Your task to perform on an android device: Go to Android settings Image 0: 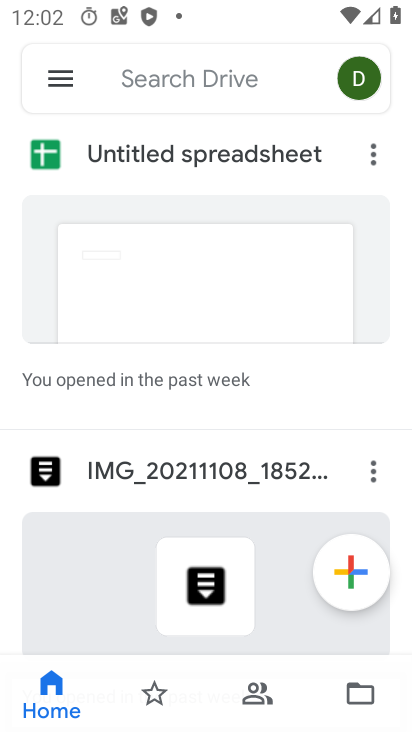
Step 0: press home button
Your task to perform on an android device: Go to Android settings Image 1: 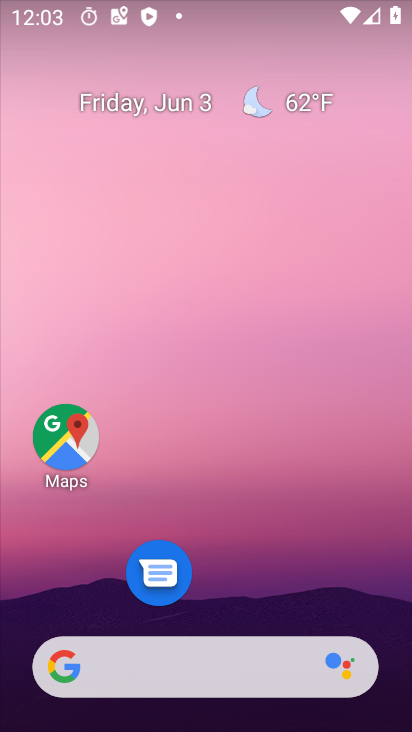
Step 1: drag from (165, 650) to (239, 33)
Your task to perform on an android device: Go to Android settings Image 2: 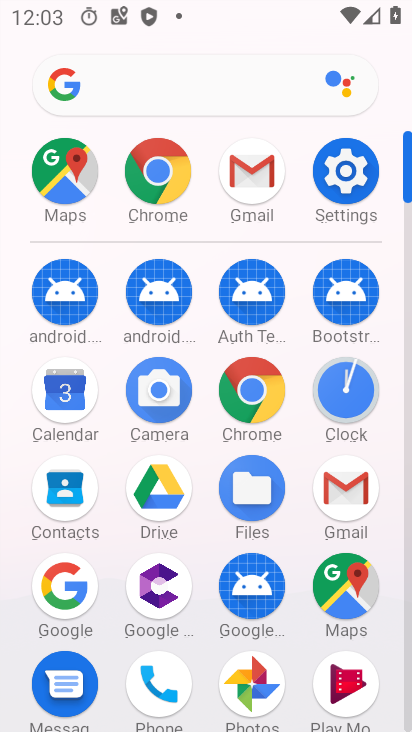
Step 2: click (352, 173)
Your task to perform on an android device: Go to Android settings Image 3: 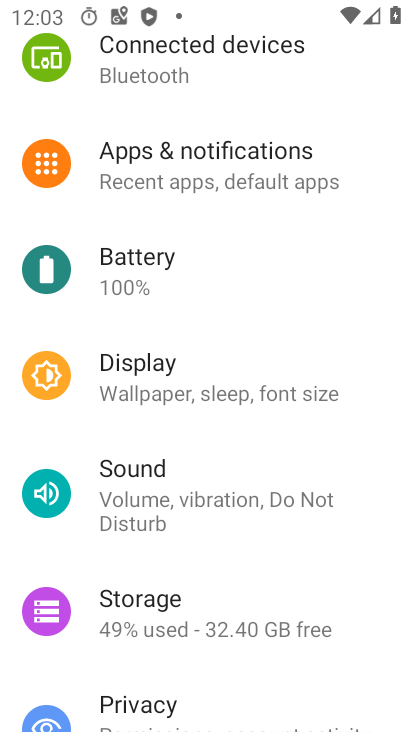
Step 3: drag from (271, 659) to (264, 136)
Your task to perform on an android device: Go to Android settings Image 4: 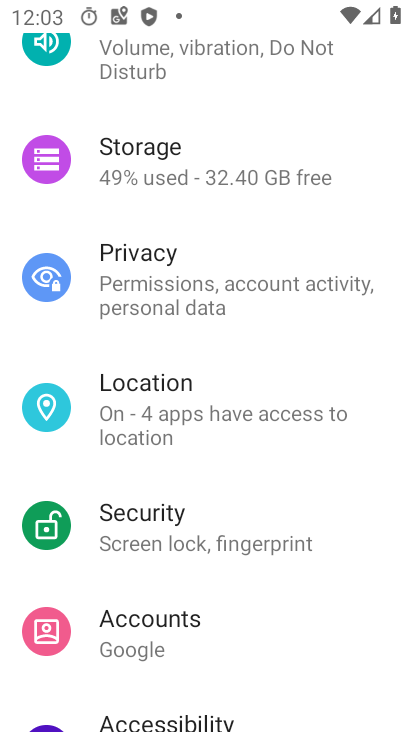
Step 4: drag from (296, 676) to (327, 142)
Your task to perform on an android device: Go to Android settings Image 5: 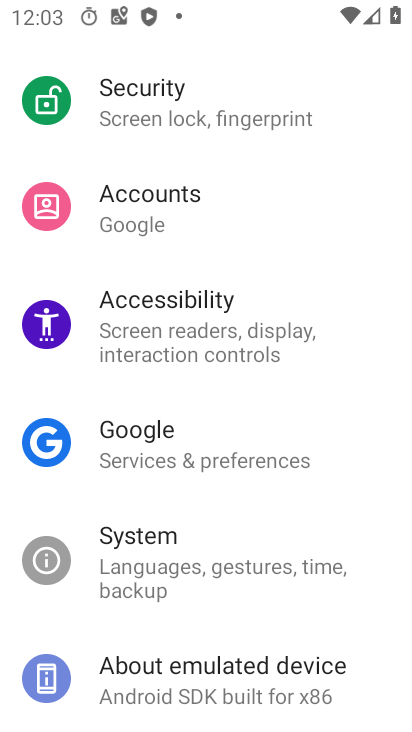
Step 5: click (271, 702)
Your task to perform on an android device: Go to Android settings Image 6: 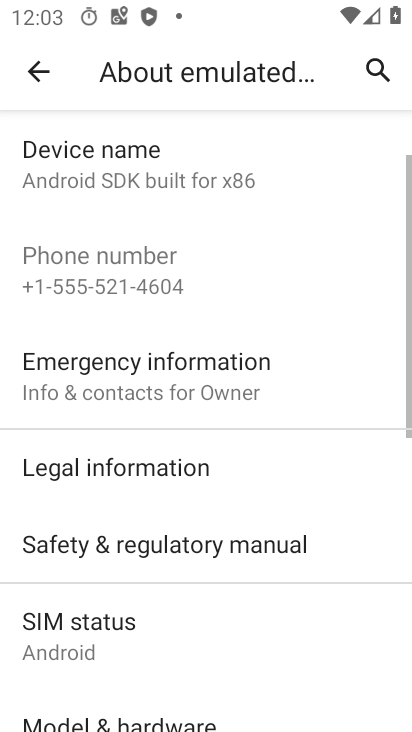
Step 6: drag from (272, 703) to (270, 269)
Your task to perform on an android device: Go to Android settings Image 7: 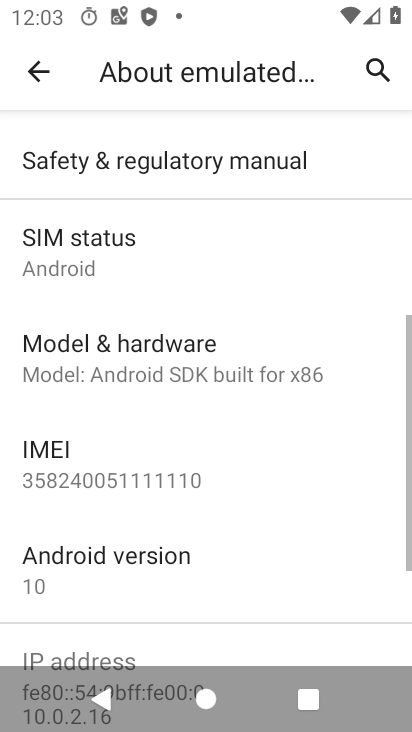
Step 7: click (220, 581)
Your task to perform on an android device: Go to Android settings Image 8: 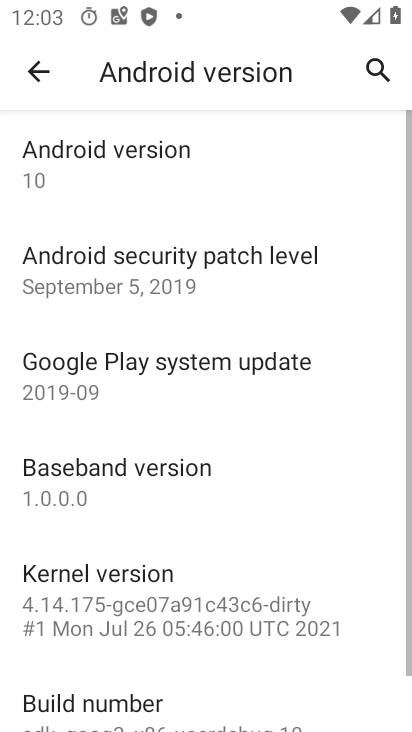
Step 8: task complete